Your task to perform on an android device: toggle data saver in the chrome app Image 0: 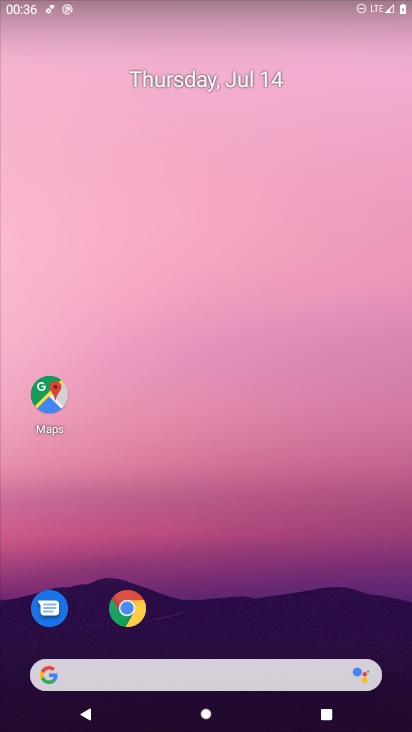
Step 0: press home button
Your task to perform on an android device: toggle data saver in the chrome app Image 1: 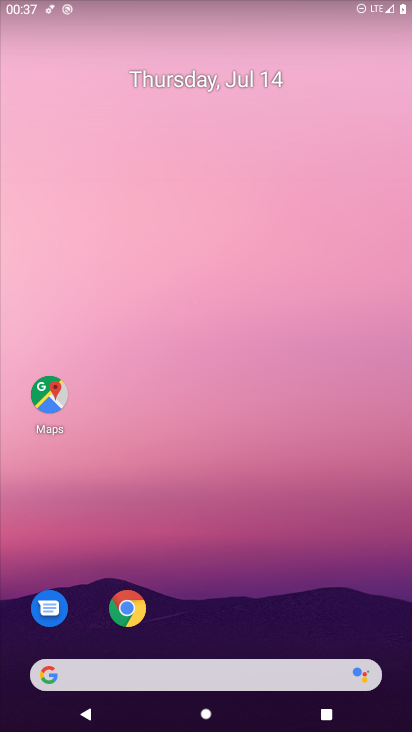
Step 1: drag from (285, 622) to (326, 92)
Your task to perform on an android device: toggle data saver in the chrome app Image 2: 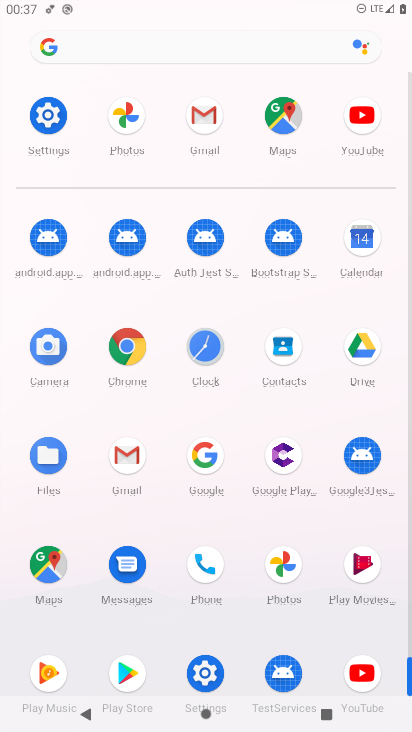
Step 2: click (130, 343)
Your task to perform on an android device: toggle data saver in the chrome app Image 3: 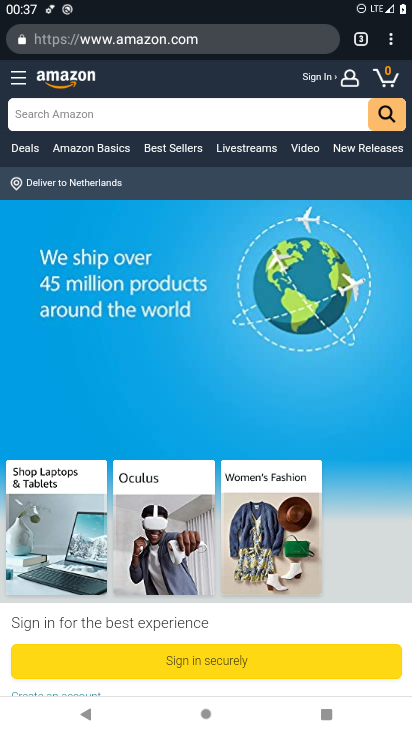
Step 3: click (393, 47)
Your task to perform on an android device: toggle data saver in the chrome app Image 4: 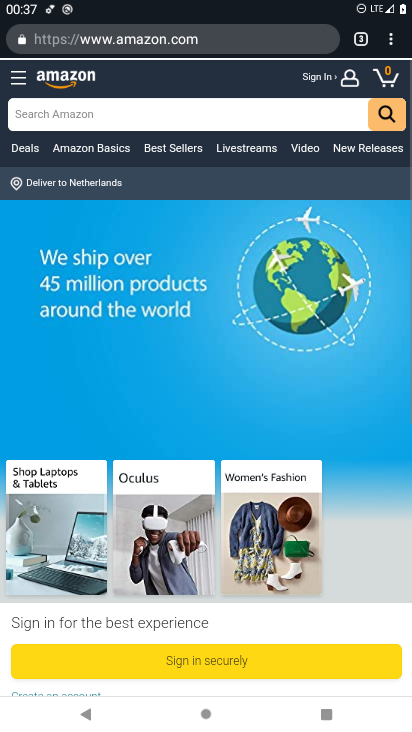
Step 4: drag from (393, 47) to (262, 479)
Your task to perform on an android device: toggle data saver in the chrome app Image 5: 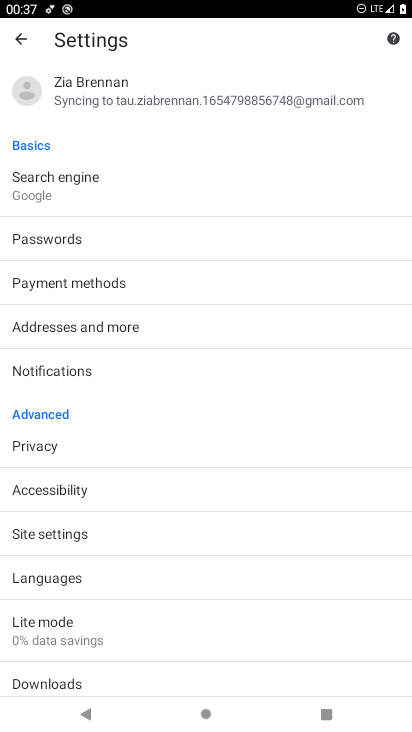
Step 5: click (36, 630)
Your task to perform on an android device: toggle data saver in the chrome app Image 6: 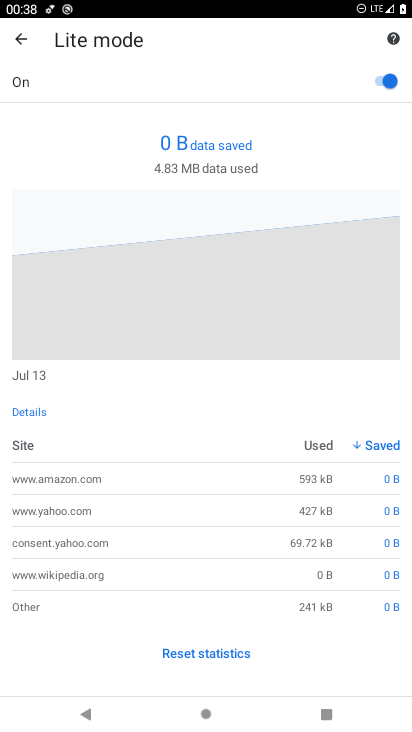
Step 6: task complete